Your task to perform on an android device: remove spam from my inbox in the gmail app Image 0: 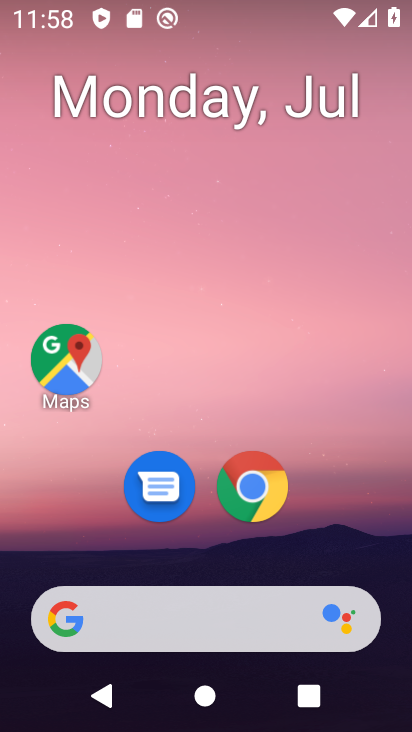
Step 0: drag from (350, 554) to (368, 84)
Your task to perform on an android device: remove spam from my inbox in the gmail app Image 1: 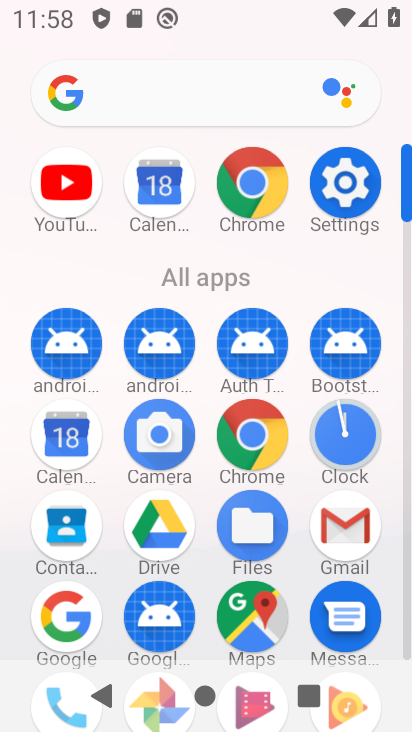
Step 1: drag from (391, 566) to (406, 314)
Your task to perform on an android device: remove spam from my inbox in the gmail app Image 2: 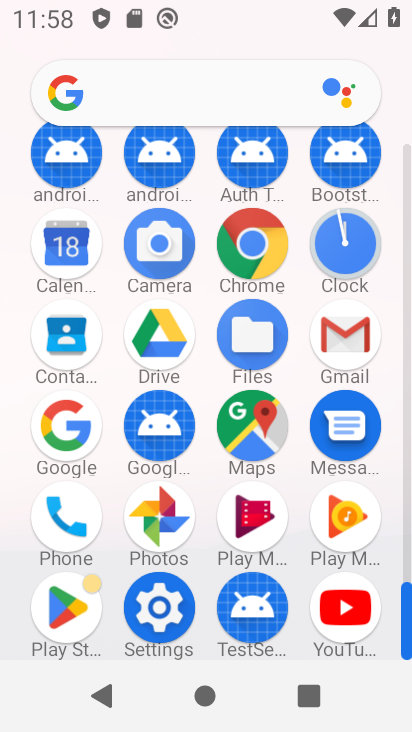
Step 2: drag from (384, 236) to (390, 363)
Your task to perform on an android device: remove spam from my inbox in the gmail app Image 3: 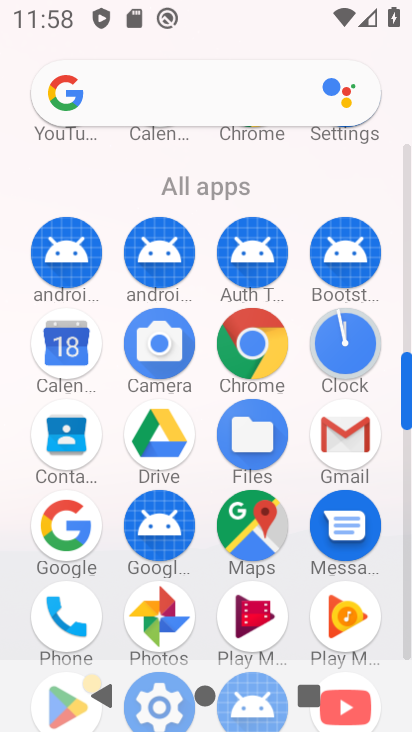
Step 3: click (354, 436)
Your task to perform on an android device: remove spam from my inbox in the gmail app Image 4: 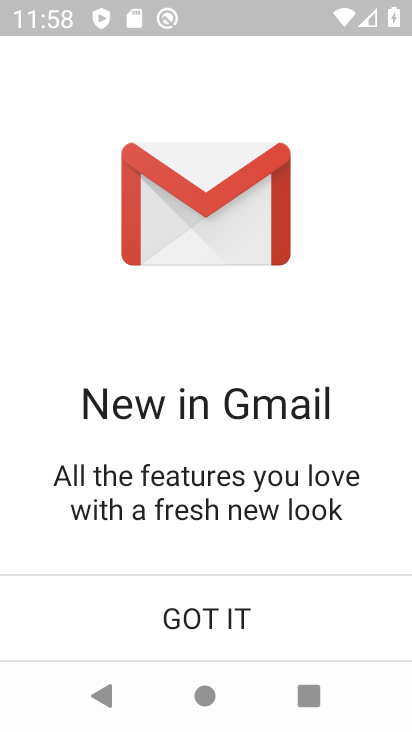
Step 4: click (242, 624)
Your task to perform on an android device: remove spam from my inbox in the gmail app Image 5: 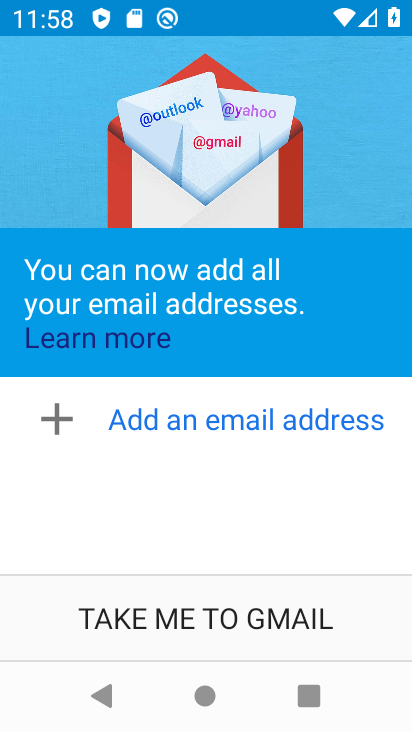
Step 5: click (294, 608)
Your task to perform on an android device: remove spam from my inbox in the gmail app Image 6: 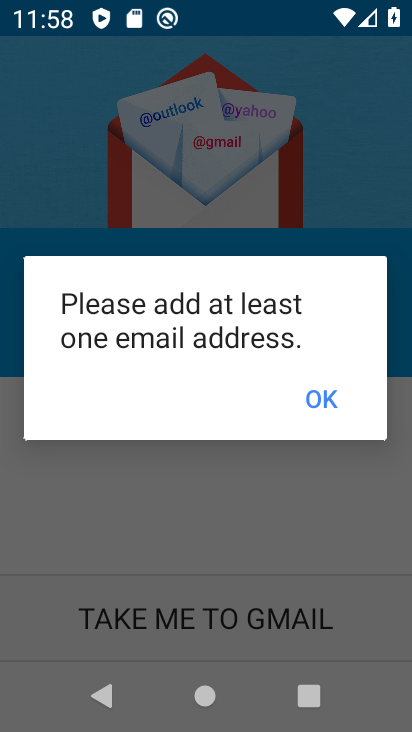
Step 6: click (329, 401)
Your task to perform on an android device: remove spam from my inbox in the gmail app Image 7: 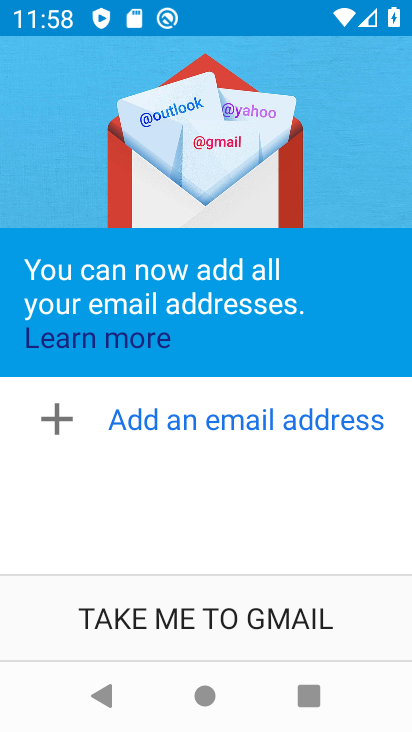
Step 7: task complete